Your task to perform on an android device: open app "Paramount+ | Peak Streaming" Image 0: 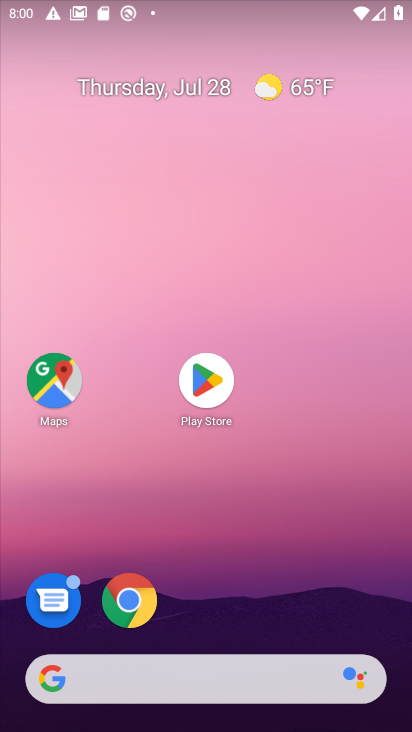
Step 0: press home button
Your task to perform on an android device: open app "Paramount+ | Peak Streaming" Image 1: 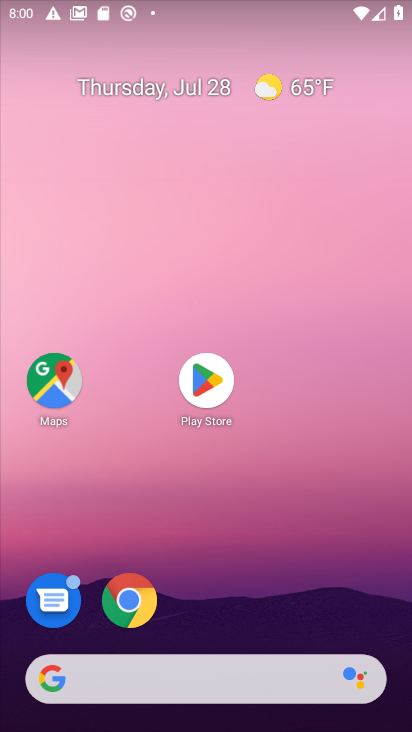
Step 1: drag from (207, 633) to (304, 160)
Your task to perform on an android device: open app "Paramount+ | Peak Streaming" Image 2: 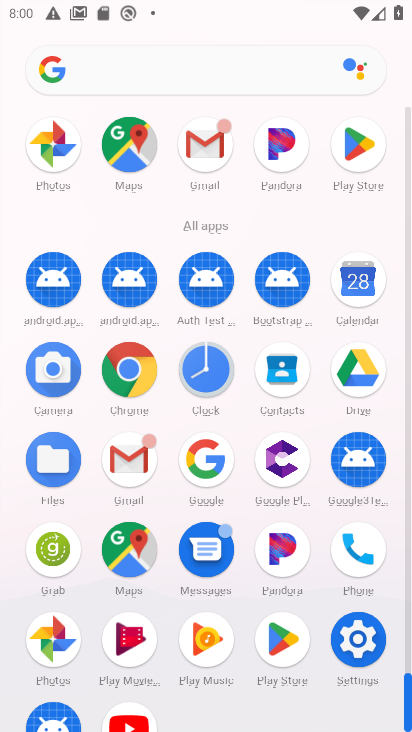
Step 2: click (282, 633)
Your task to perform on an android device: open app "Paramount+ | Peak Streaming" Image 3: 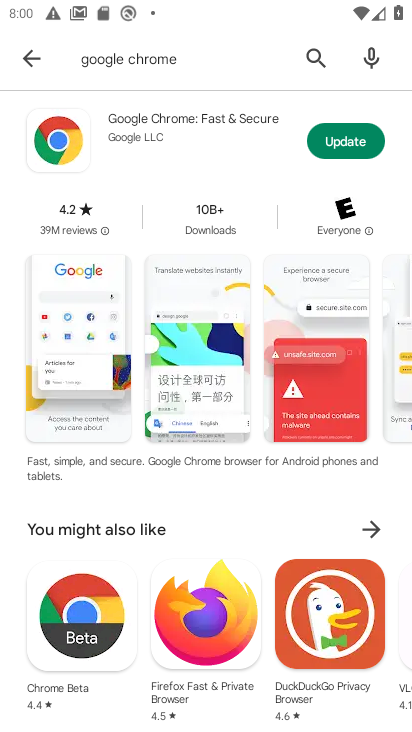
Step 3: click (312, 57)
Your task to perform on an android device: open app "Paramount+ | Peak Streaming" Image 4: 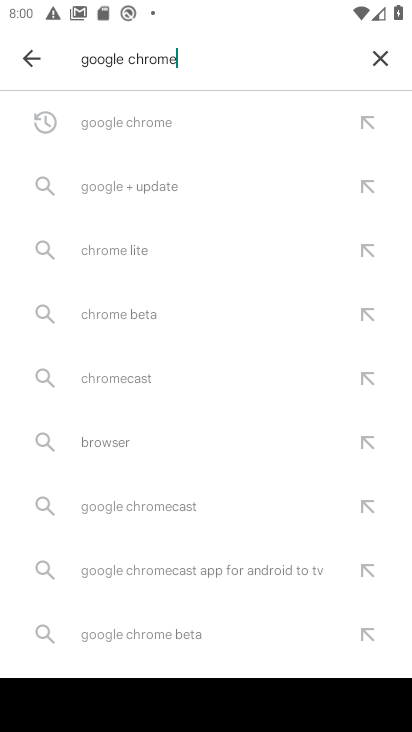
Step 4: click (383, 56)
Your task to perform on an android device: open app "Paramount+ | Peak Streaming" Image 5: 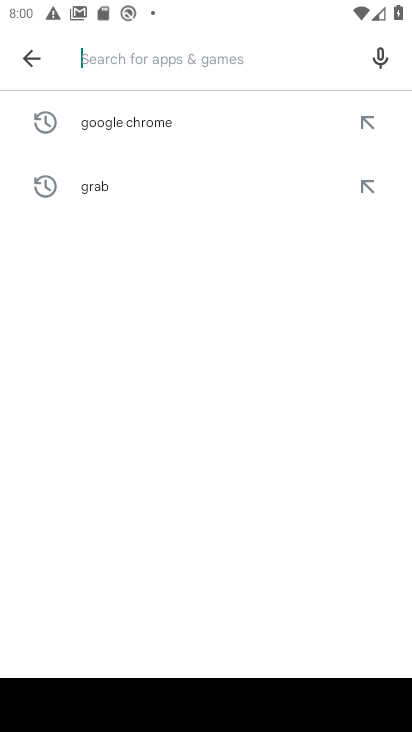
Step 5: type "Paramount+ | Peak Streaming"
Your task to perform on an android device: open app "Paramount+ | Peak Streaming" Image 6: 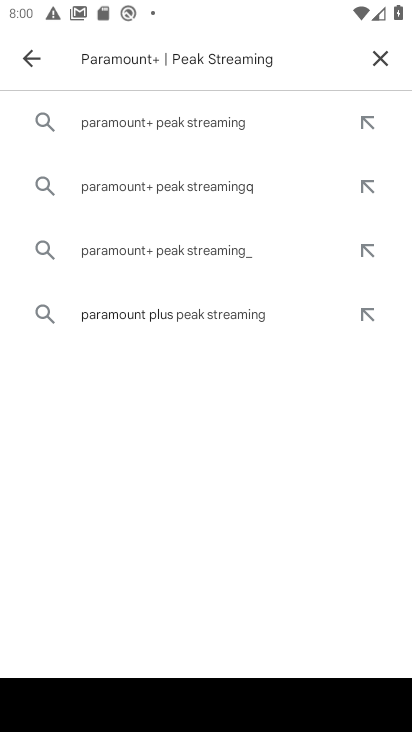
Step 6: click (150, 124)
Your task to perform on an android device: open app "Paramount+ | Peak Streaming" Image 7: 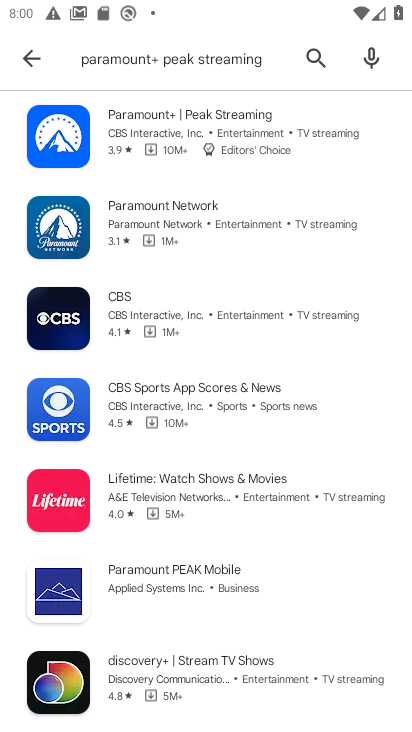
Step 7: click (223, 126)
Your task to perform on an android device: open app "Paramount+ | Peak Streaming" Image 8: 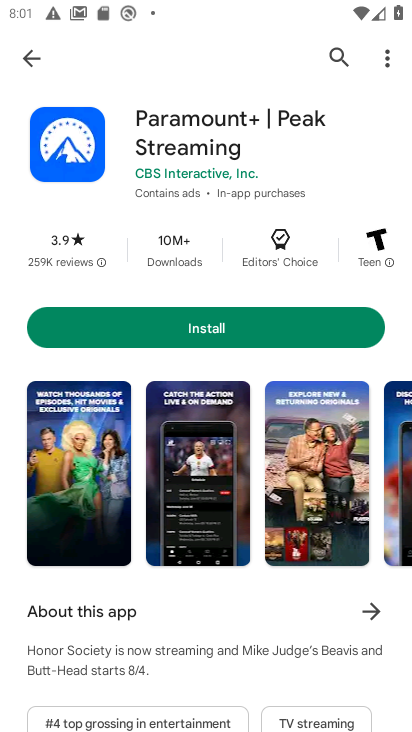
Step 8: task complete